Your task to perform on an android device: find photos in the google photos app Image 0: 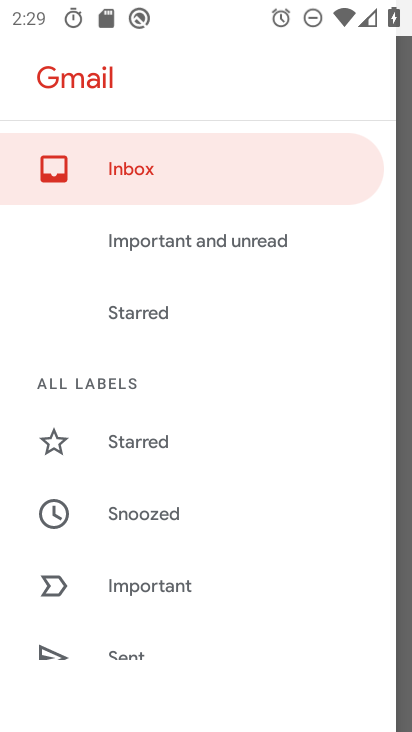
Step 0: press home button
Your task to perform on an android device: find photos in the google photos app Image 1: 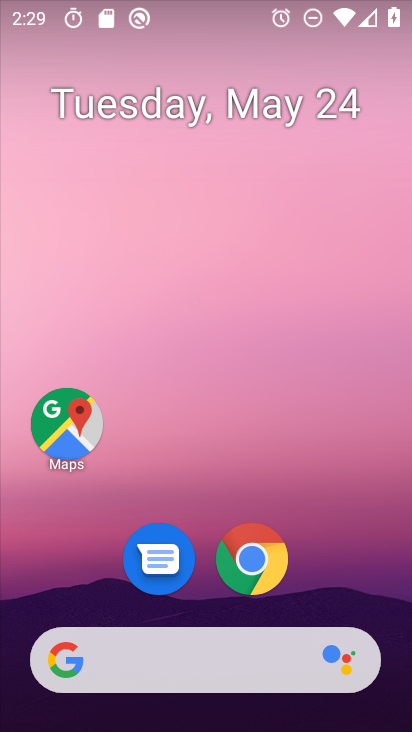
Step 1: click (367, 211)
Your task to perform on an android device: find photos in the google photos app Image 2: 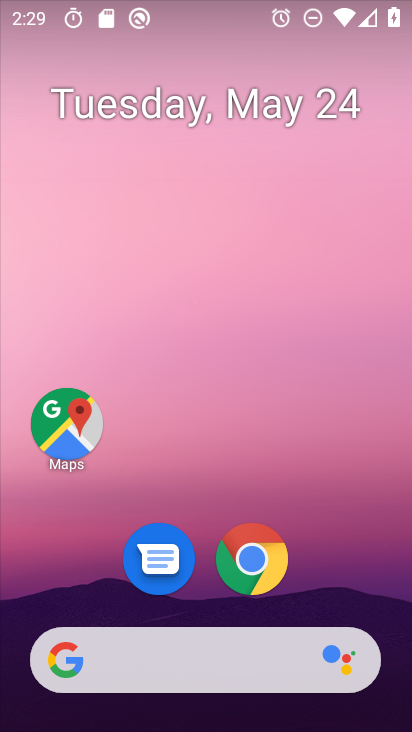
Step 2: drag from (395, 709) to (389, 190)
Your task to perform on an android device: find photos in the google photos app Image 3: 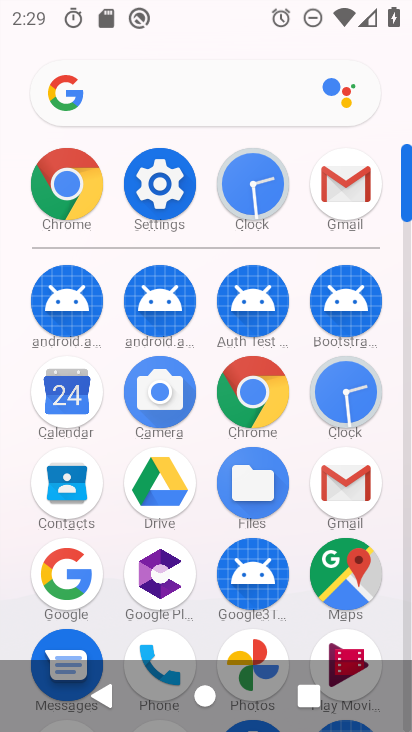
Step 3: click (245, 639)
Your task to perform on an android device: find photos in the google photos app Image 4: 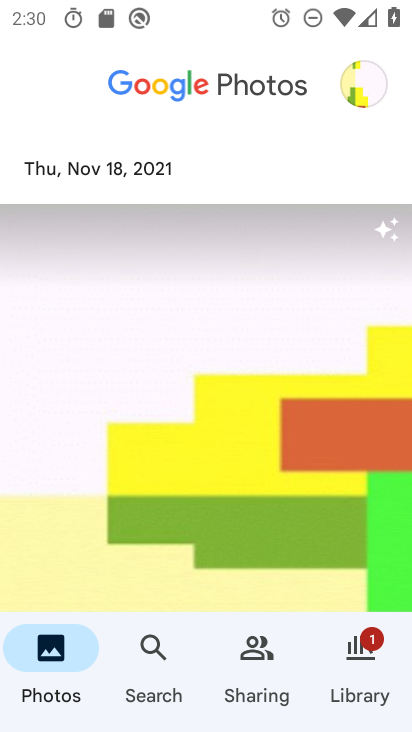
Step 4: task complete